Your task to perform on an android device: Open my contact list Image 0: 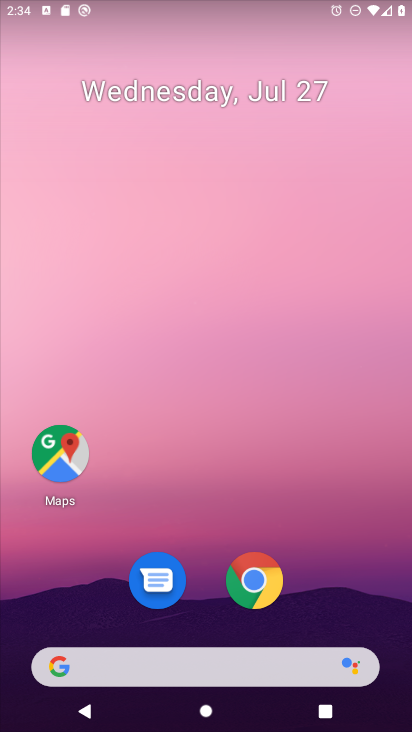
Step 0: drag from (230, 700) to (192, 204)
Your task to perform on an android device: Open my contact list Image 1: 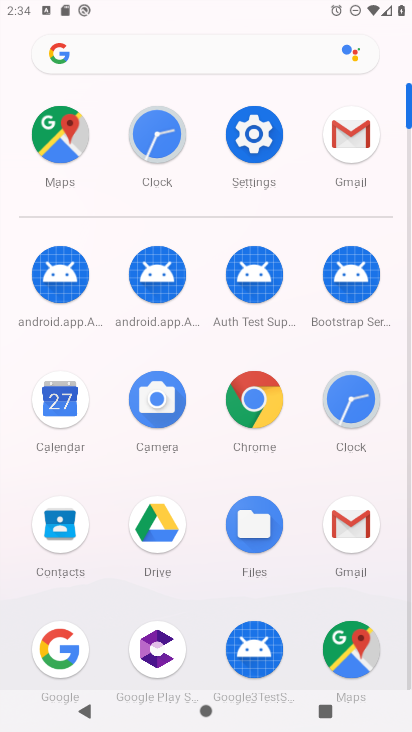
Step 1: drag from (191, 479) to (189, 274)
Your task to perform on an android device: Open my contact list Image 2: 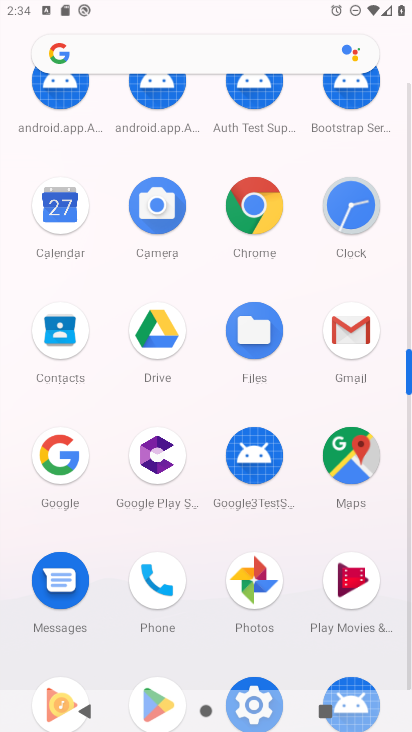
Step 2: click (171, 581)
Your task to perform on an android device: Open my contact list Image 3: 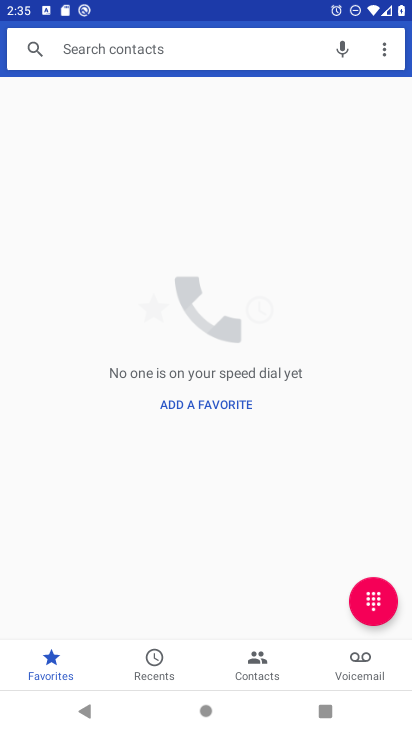
Step 3: click (261, 671)
Your task to perform on an android device: Open my contact list Image 4: 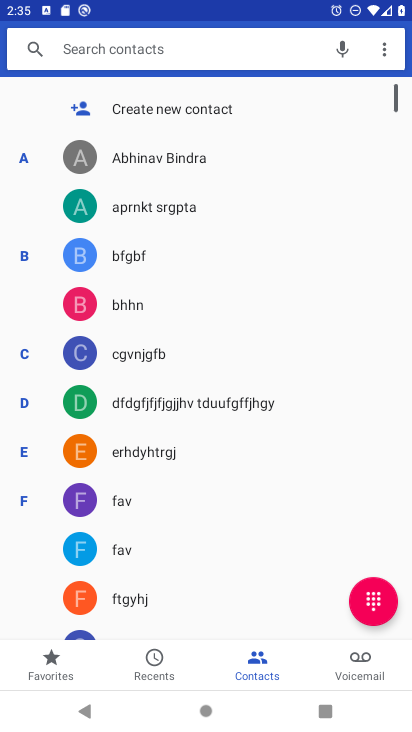
Step 4: task complete